Your task to perform on an android device: turn on priority inbox in the gmail app Image 0: 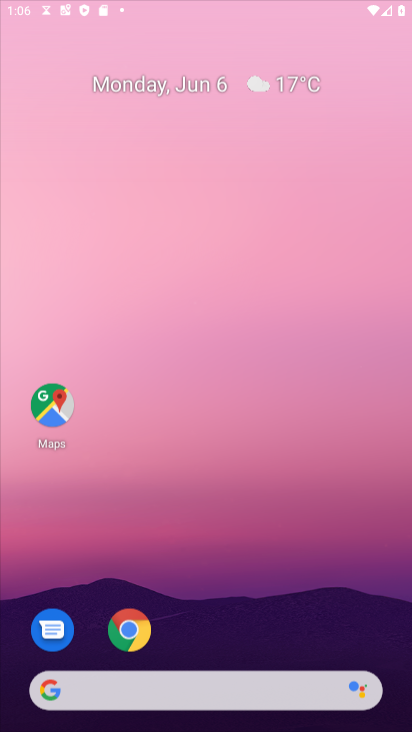
Step 0: drag from (58, 7) to (128, 181)
Your task to perform on an android device: turn on priority inbox in the gmail app Image 1: 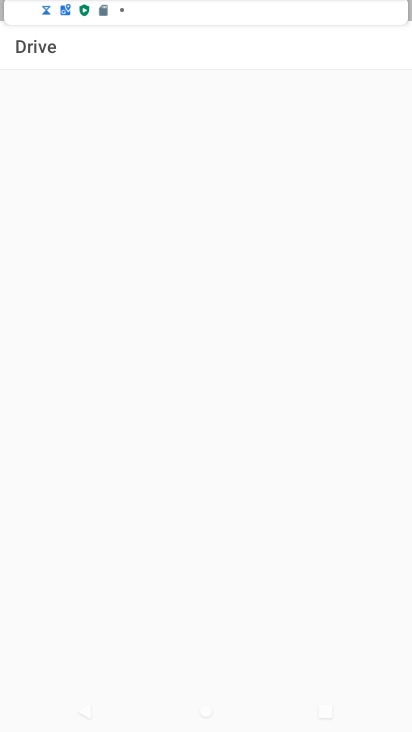
Step 1: drag from (229, 635) to (203, 247)
Your task to perform on an android device: turn on priority inbox in the gmail app Image 2: 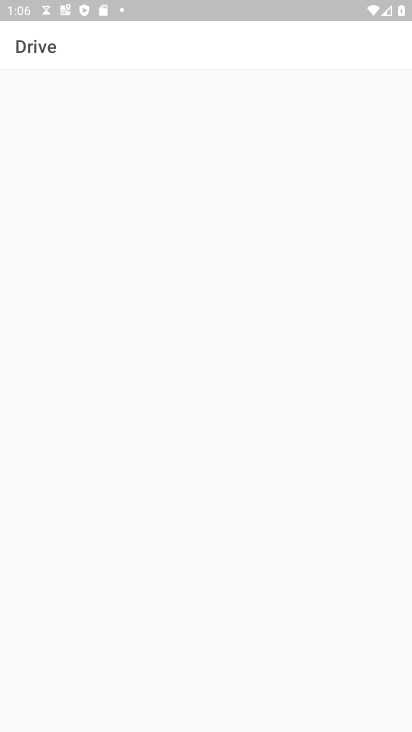
Step 2: press back button
Your task to perform on an android device: turn on priority inbox in the gmail app Image 3: 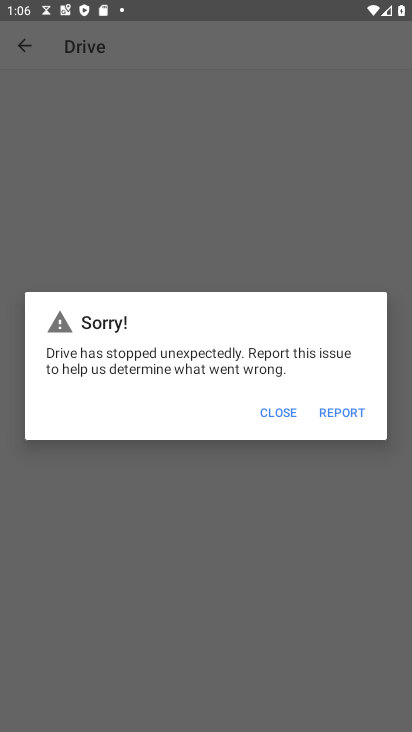
Step 3: click (277, 406)
Your task to perform on an android device: turn on priority inbox in the gmail app Image 4: 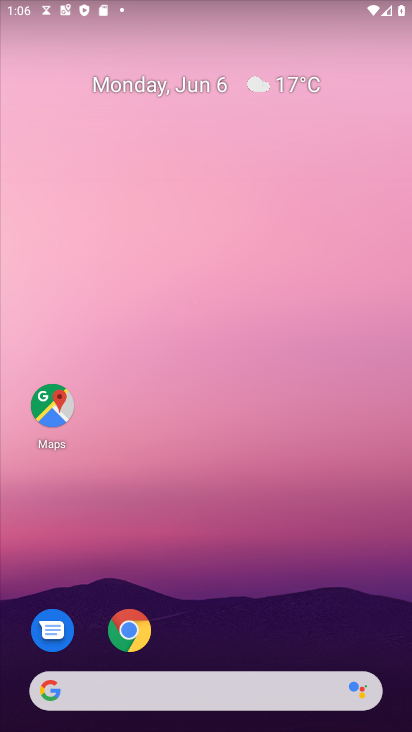
Step 4: drag from (223, 686) to (122, 95)
Your task to perform on an android device: turn on priority inbox in the gmail app Image 5: 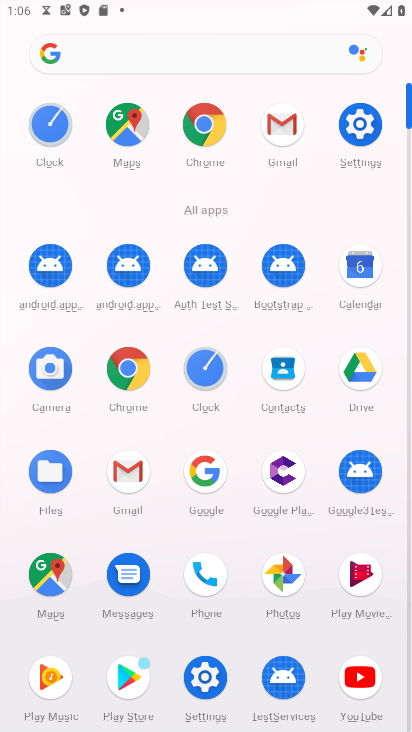
Step 5: click (123, 472)
Your task to perform on an android device: turn on priority inbox in the gmail app Image 6: 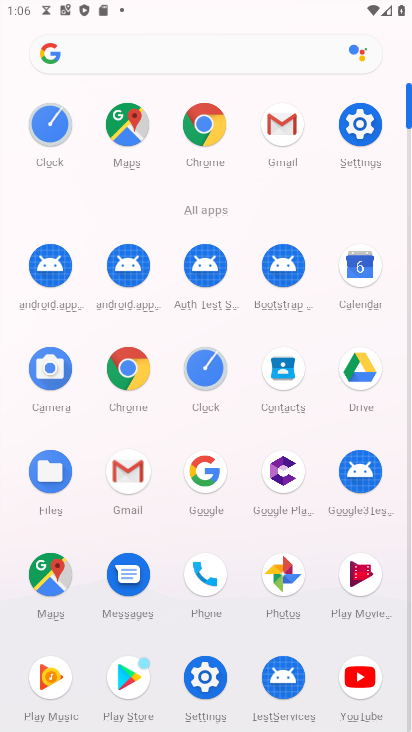
Step 6: click (121, 472)
Your task to perform on an android device: turn on priority inbox in the gmail app Image 7: 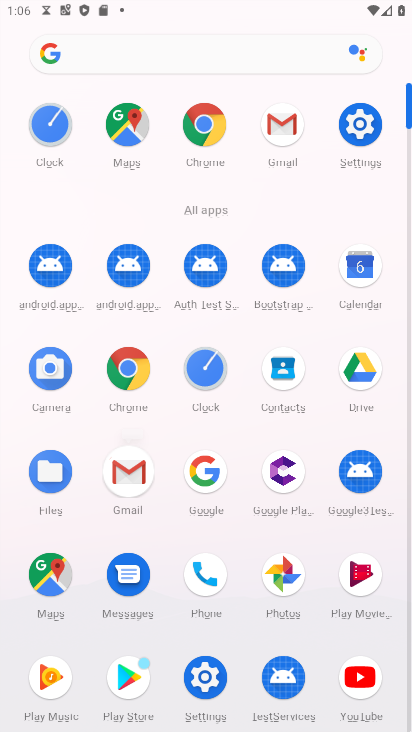
Step 7: click (124, 474)
Your task to perform on an android device: turn on priority inbox in the gmail app Image 8: 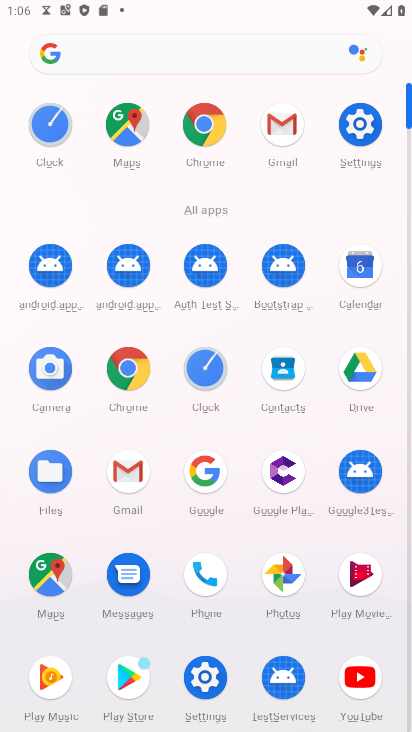
Step 8: click (125, 474)
Your task to perform on an android device: turn on priority inbox in the gmail app Image 9: 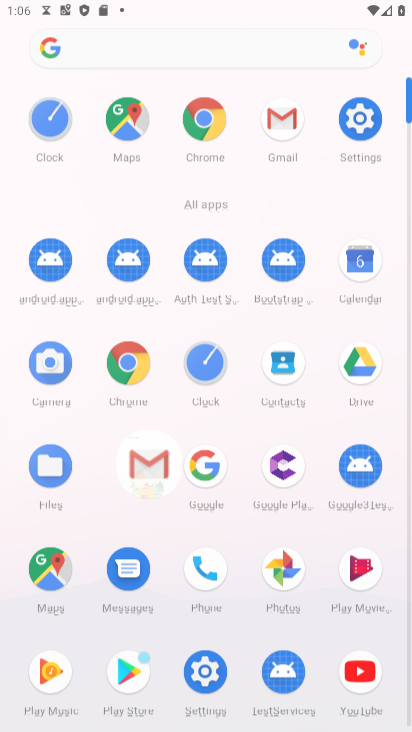
Step 9: click (120, 479)
Your task to perform on an android device: turn on priority inbox in the gmail app Image 10: 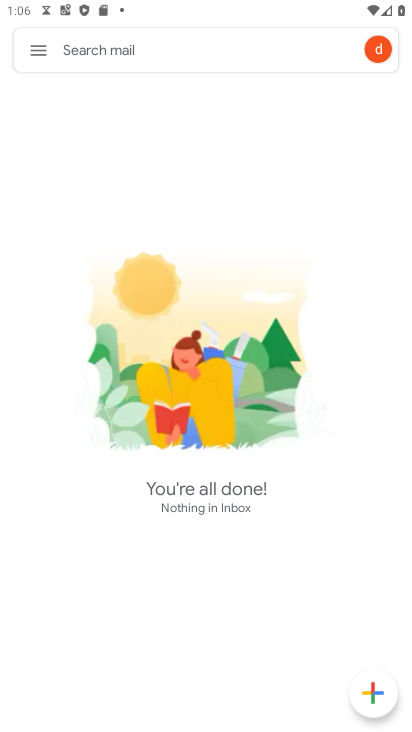
Step 10: click (39, 49)
Your task to perform on an android device: turn on priority inbox in the gmail app Image 11: 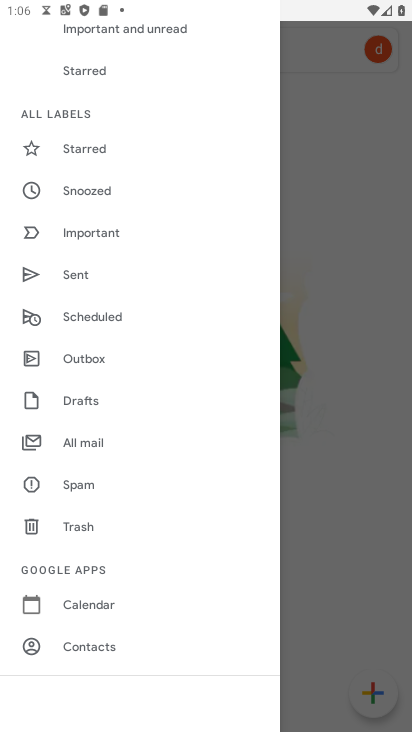
Step 11: drag from (131, 587) to (119, 271)
Your task to perform on an android device: turn on priority inbox in the gmail app Image 12: 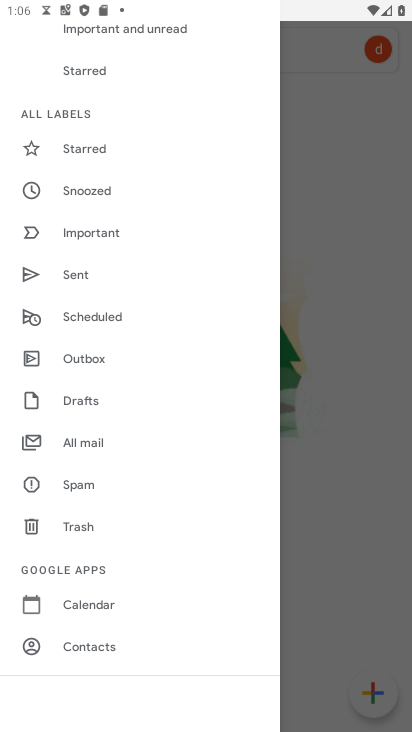
Step 12: drag from (148, 477) to (130, 136)
Your task to perform on an android device: turn on priority inbox in the gmail app Image 13: 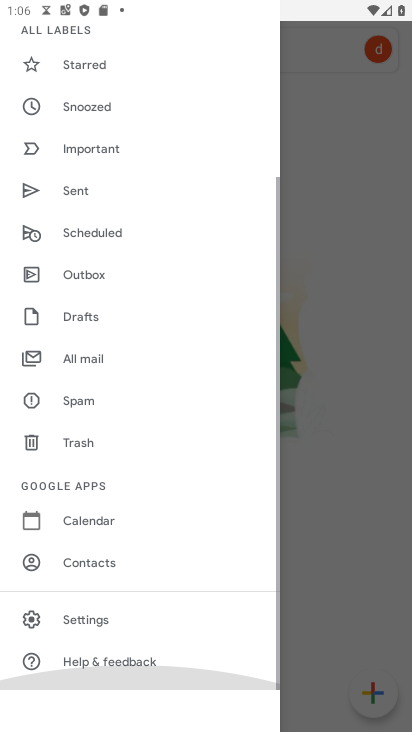
Step 13: drag from (189, 451) to (186, 172)
Your task to perform on an android device: turn on priority inbox in the gmail app Image 14: 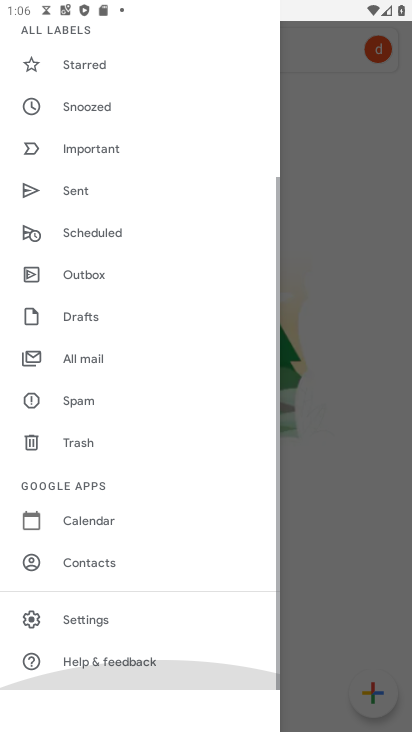
Step 14: drag from (139, 523) to (84, 281)
Your task to perform on an android device: turn on priority inbox in the gmail app Image 15: 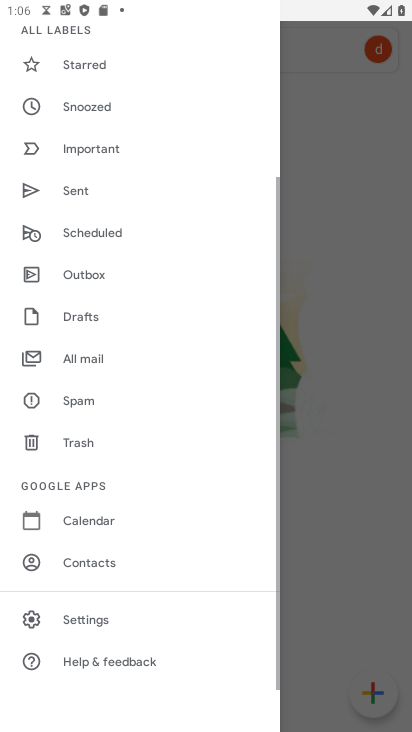
Step 15: click (74, 624)
Your task to perform on an android device: turn on priority inbox in the gmail app Image 16: 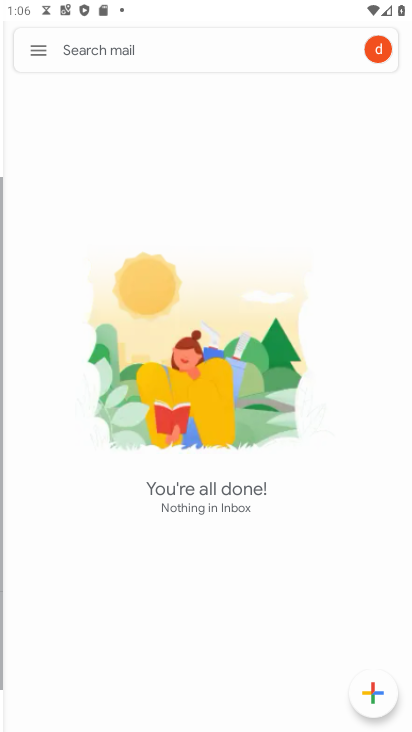
Step 16: click (73, 625)
Your task to perform on an android device: turn on priority inbox in the gmail app Image 17: 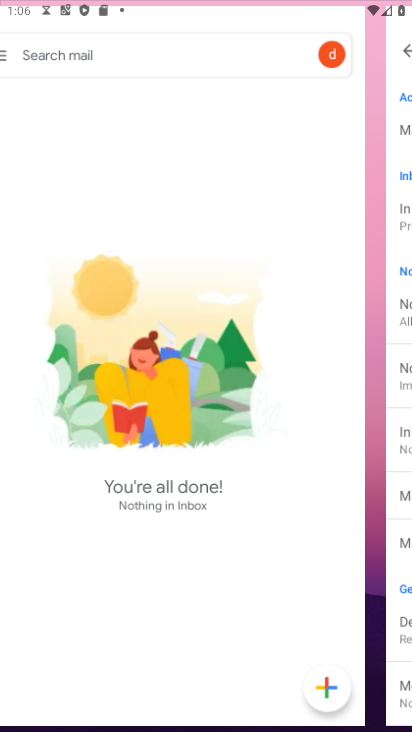
Step 17: click (73, 624)
Your task to perform on an android device: turn on priority inbox in the gmail app Image 18: 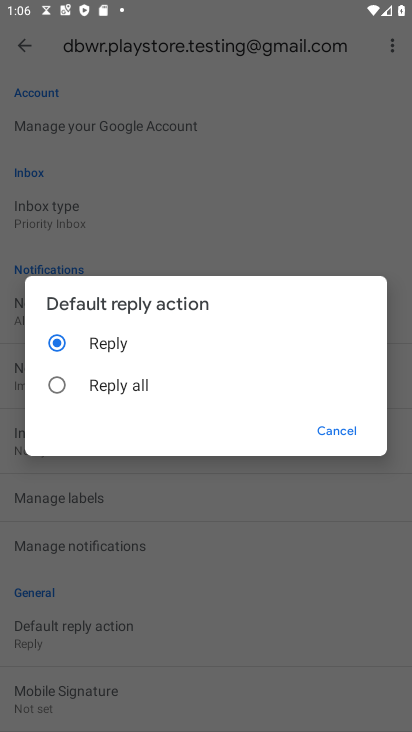
Step 18: click (319, 433)
Your task to perform on an android device: turn on priority inbox in the gmail app Image 19: 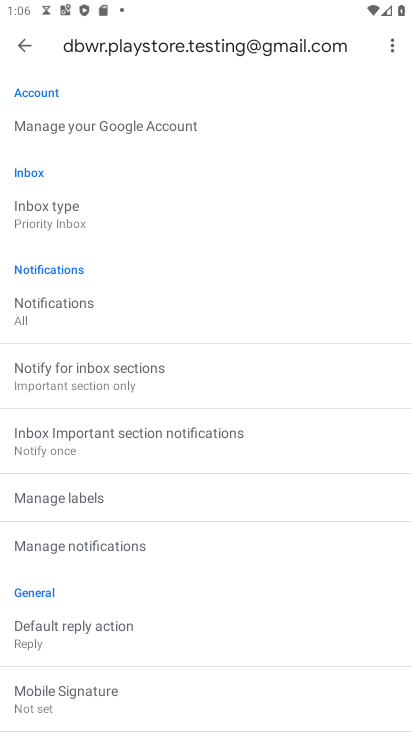
Step 19: task complete